Your task to perform on an android device: see sites visited before in the chrome app Image 0: 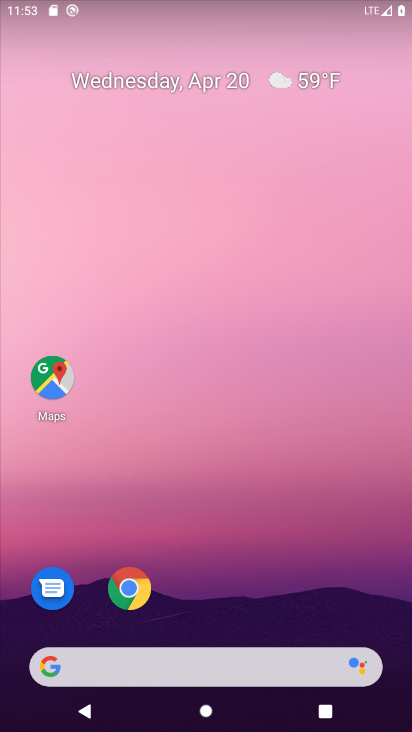
Step 0: click (127, 595)
Your task to perform on an android device: see sites visited before in the chrome app Image 1: 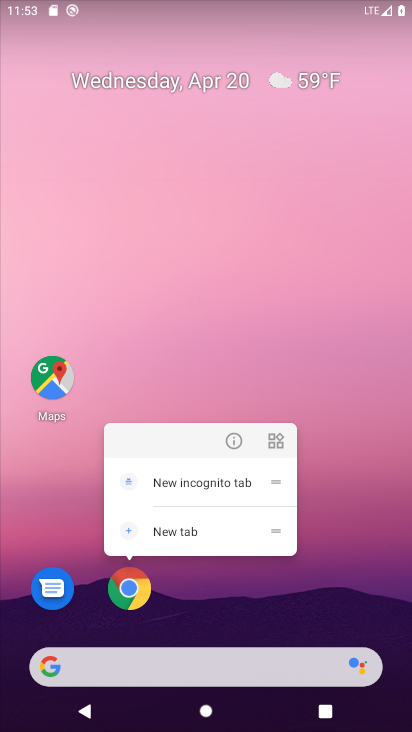
Step 1: click (124, 597)
Your task to perform on an android device: see sites visited before in the chrome app Image 2: 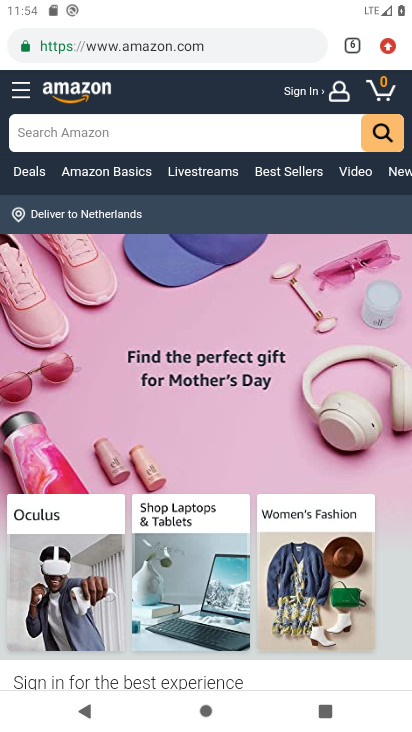
Step 2: click (393, 52)
Your task to perform on an android device: see sites visited before in the chrome app Image 3: 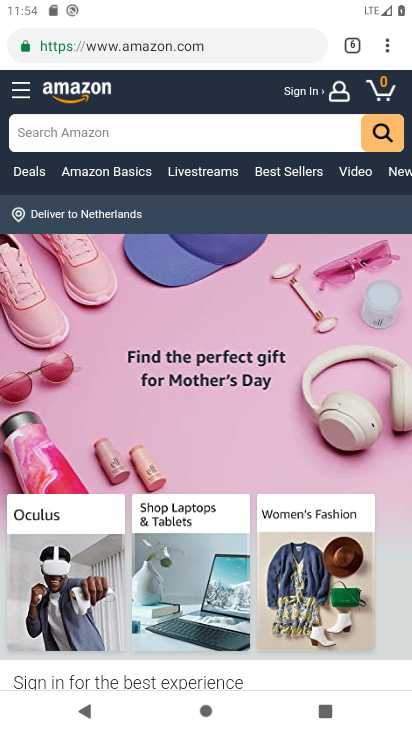
Step 3: click (386, 46)
Your task to perform on an android device: see sites visited before in the chrome app Image 4: 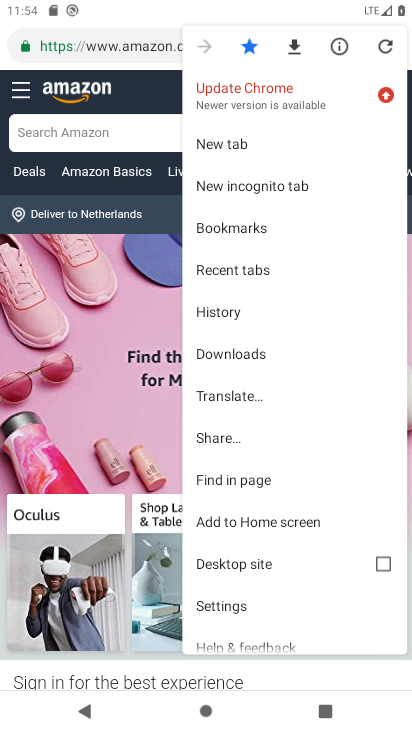
Step 4: click (215, 306)
Your task to perform on an android device: see sites visited before in the chrome app Image 5: 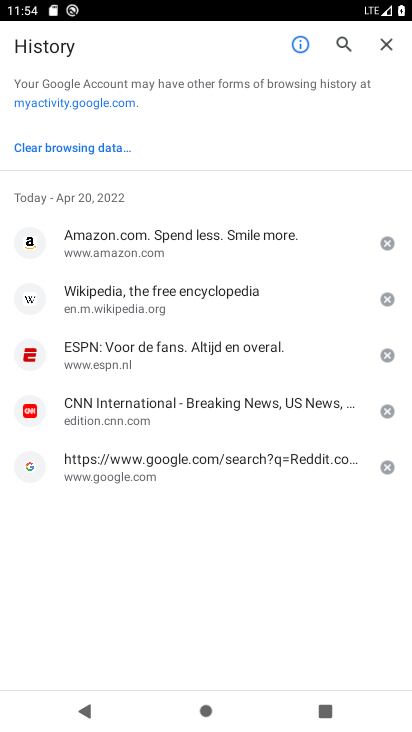
Step 5: task complete